Your task to perform on an android device: delete browsing data in the chrome app Image 0: 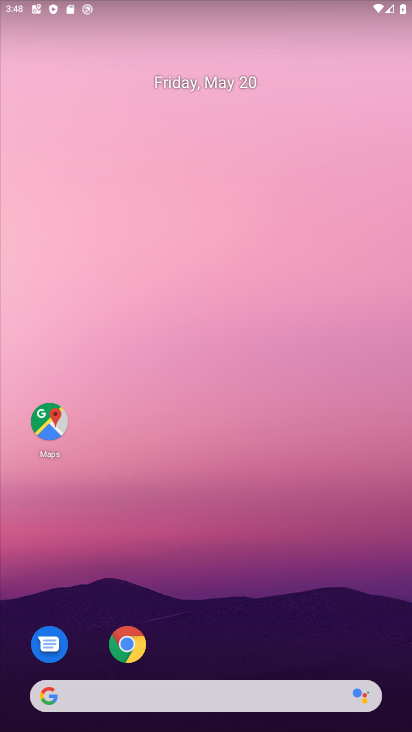
Step 0: click (126, 642)
Your task to perform on an android device: delete browsing data in the chrome app Image 1: 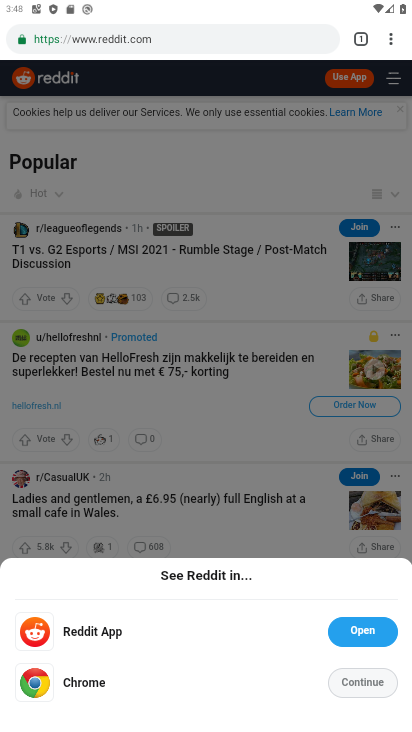
Step 1: task complete